Your task to perform on an android device: turn vacation reply on in the gmail app Image 0: 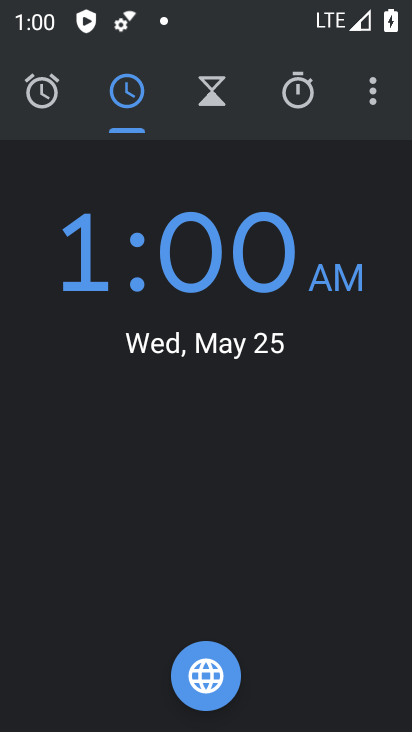
Step 0: press home button
Your task to perform on an android device: turn vacation reply on in the gmail app Image 1: 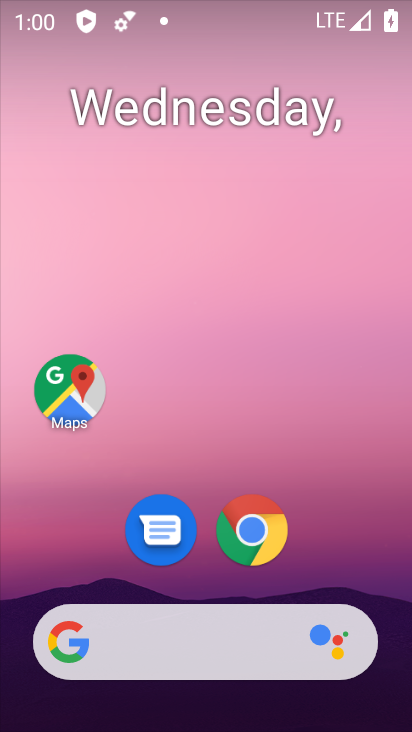
Step 1: drag from (352, 559) to (356, 162)
Your task to perform on an android device: turn vacation reply on in the gmail app Image 2: 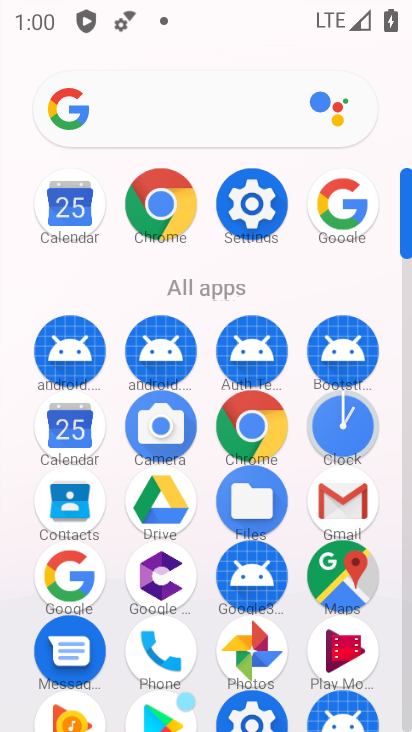
Step 2: click (361, 505)
Your task to perform on an android device: turn vacation reply on in the gmail app Image 3: 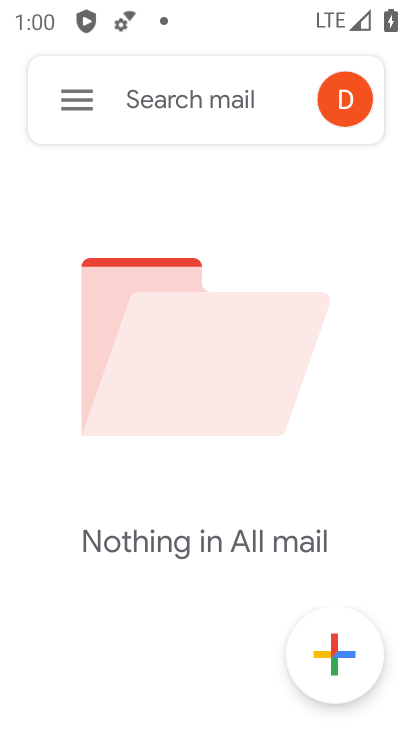
Step 3: click (68, 102)
Your task to perform on an android device: turn vacation reply on in the gmail app Image 4: 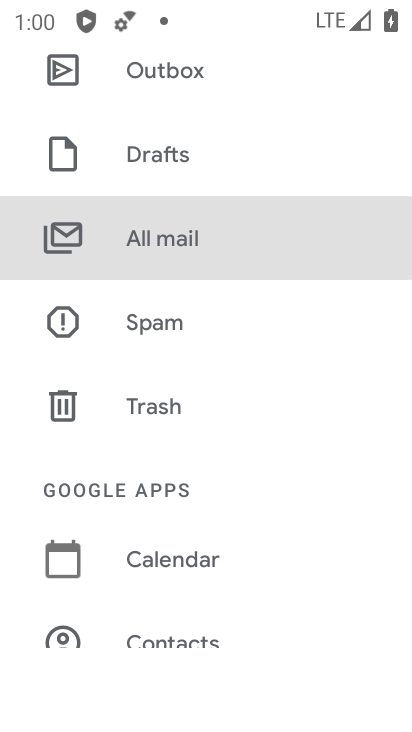
Step 4: drag from (231, 610) to (232, 228)
Your task to perform on an android device: turn vacation reply on in the gmail app Image 5: 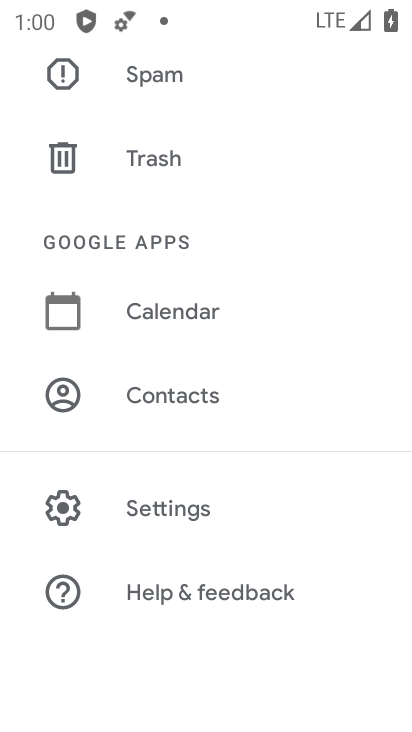
Step 5: click (229, 521)
Your task to perform on an android device: turn vacation reply on in the gmail app Image 6: 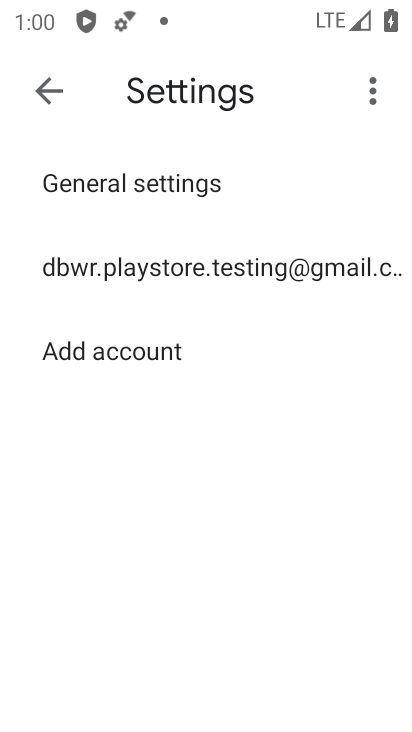
Step 6: click (271, 247)
Your task to perform on an android device: turn vacation reply on in the gmail app Image 7: 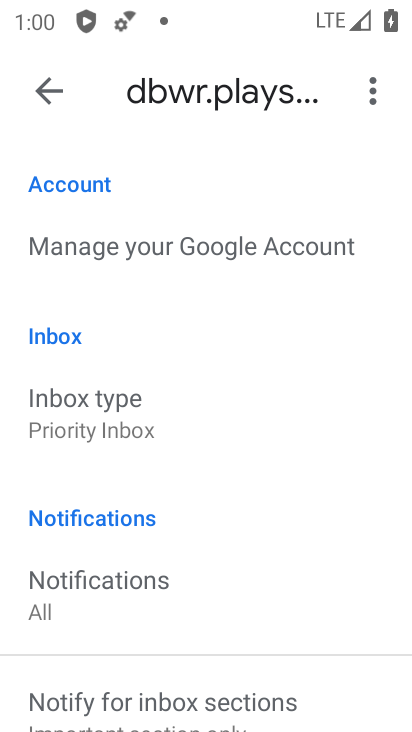
Step 7: drag from (346, 708) to (287, 266)
Your task to perform on an android device: turn vacation reply on in the gmail app Image 8: 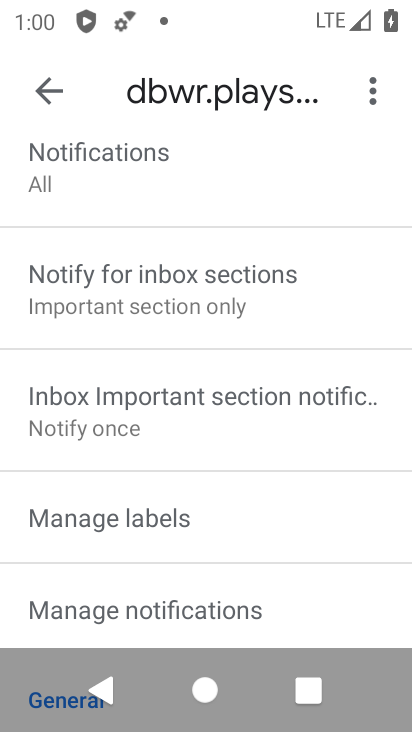
Step 8: drag from (310, 607) to (286, 188)
Your task to perform on an android device: turn vacation reply on in the gmail app Image 9: 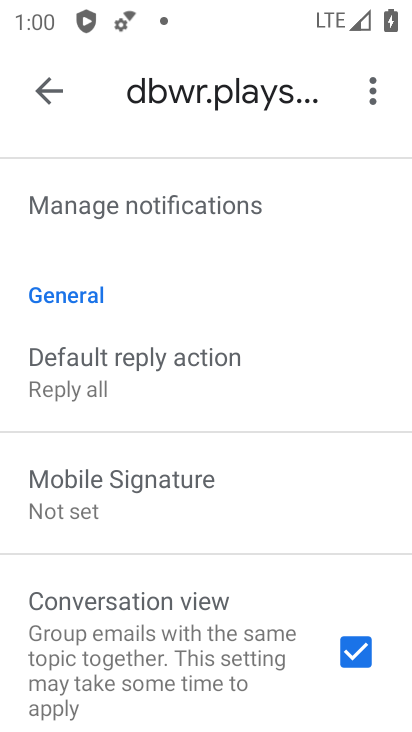
Step 9: drag from (319, 610) to (308, 207)
Your task to perform on an android device: turn vacation reply on in the gmail app Image 10: 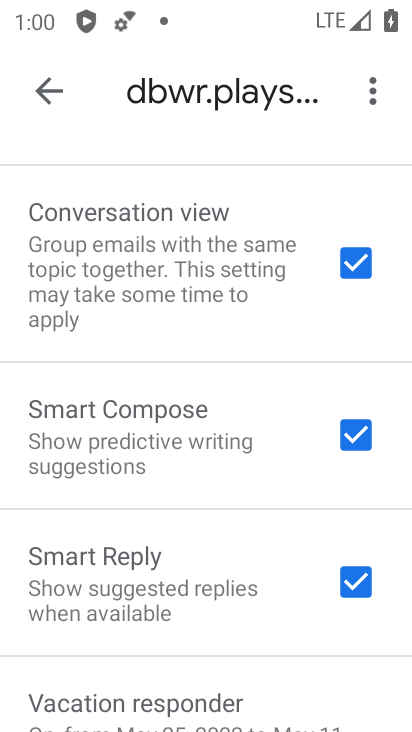
Step 10: drag from (276, 630) to (282, 284)
Your task to perform on an android device: turn vacation reply on in the gmail app Image 11: 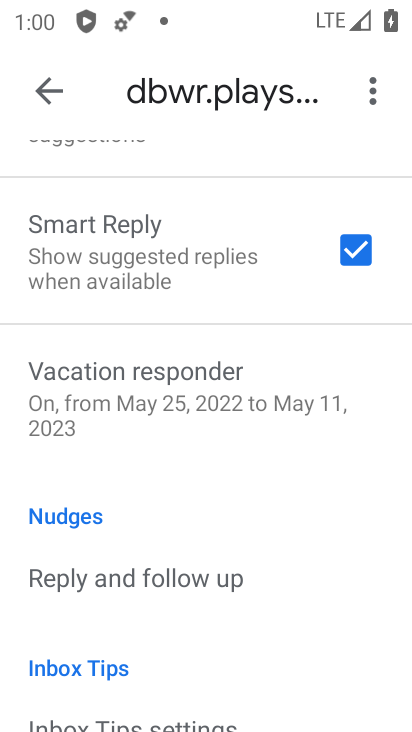
Step 11: click (235, 390)
Your task to perform on an android device: turn vacation reply on in the gmail app Image 12: 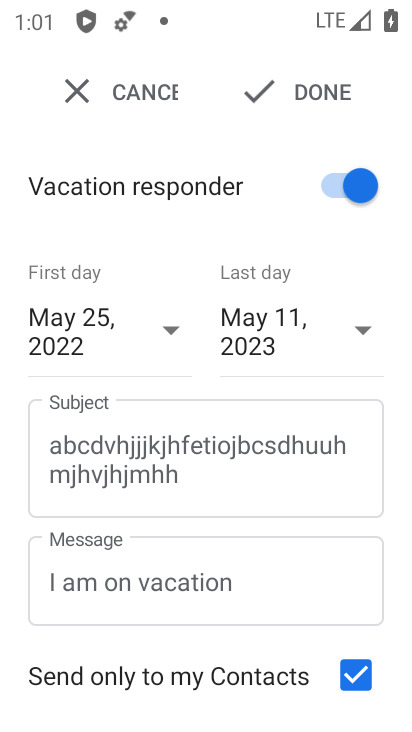
Step 12: task complete